Your task to perform on an android device: View the shopping cart on costco. Search for "lg ultragear" on costco, select the first entry, and add it to the cart. Image 0: 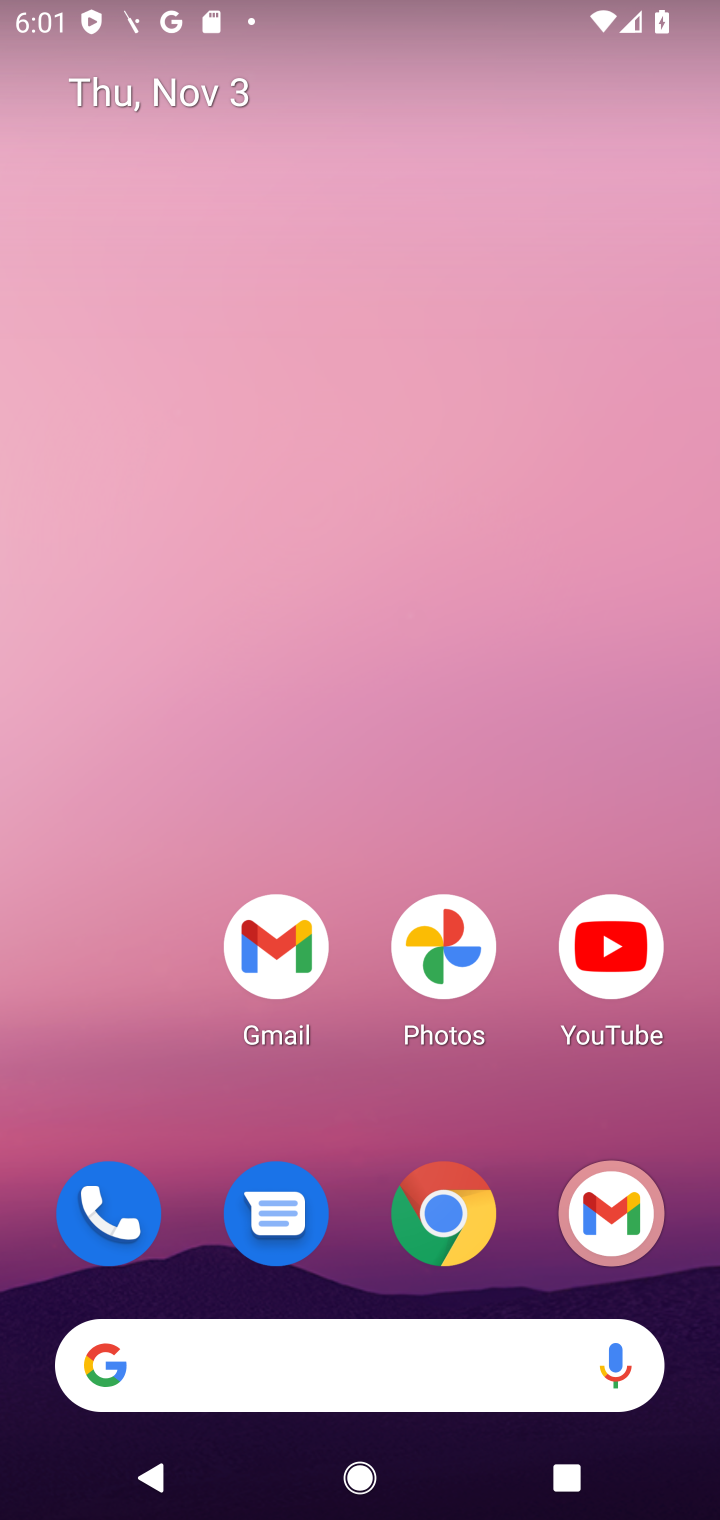
Step 0: click (463, 1234)
Your task to perform on an android device: View the shopping cart on costco. Search for "lg ultragear" on costco, select the first entry, and add it to the cart. Image 1: 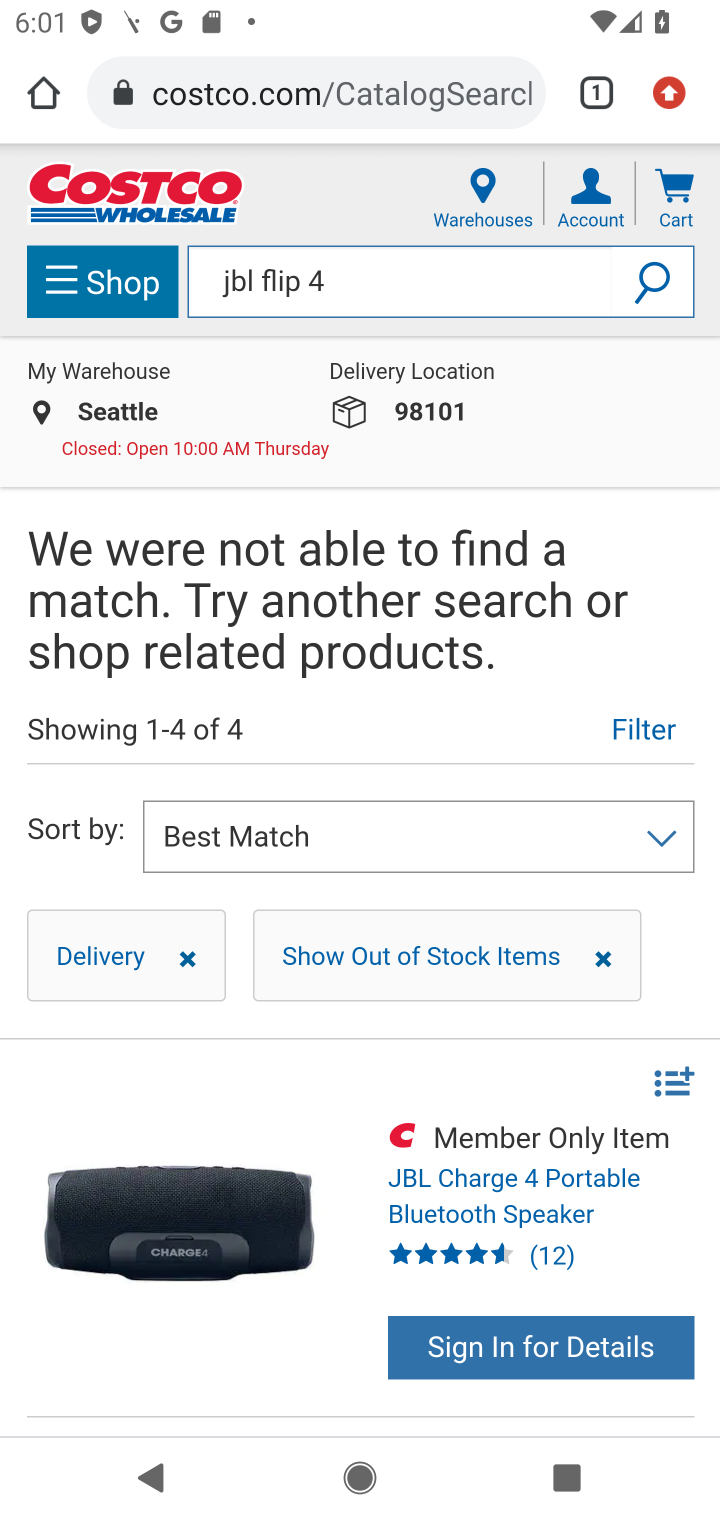
Step 1: click (670, 204)
Your task to perform on an android device: View the shopping cart on costco. Search for "lg ultragear" on costco, select the first entry, and add it to the cart. Image 2: 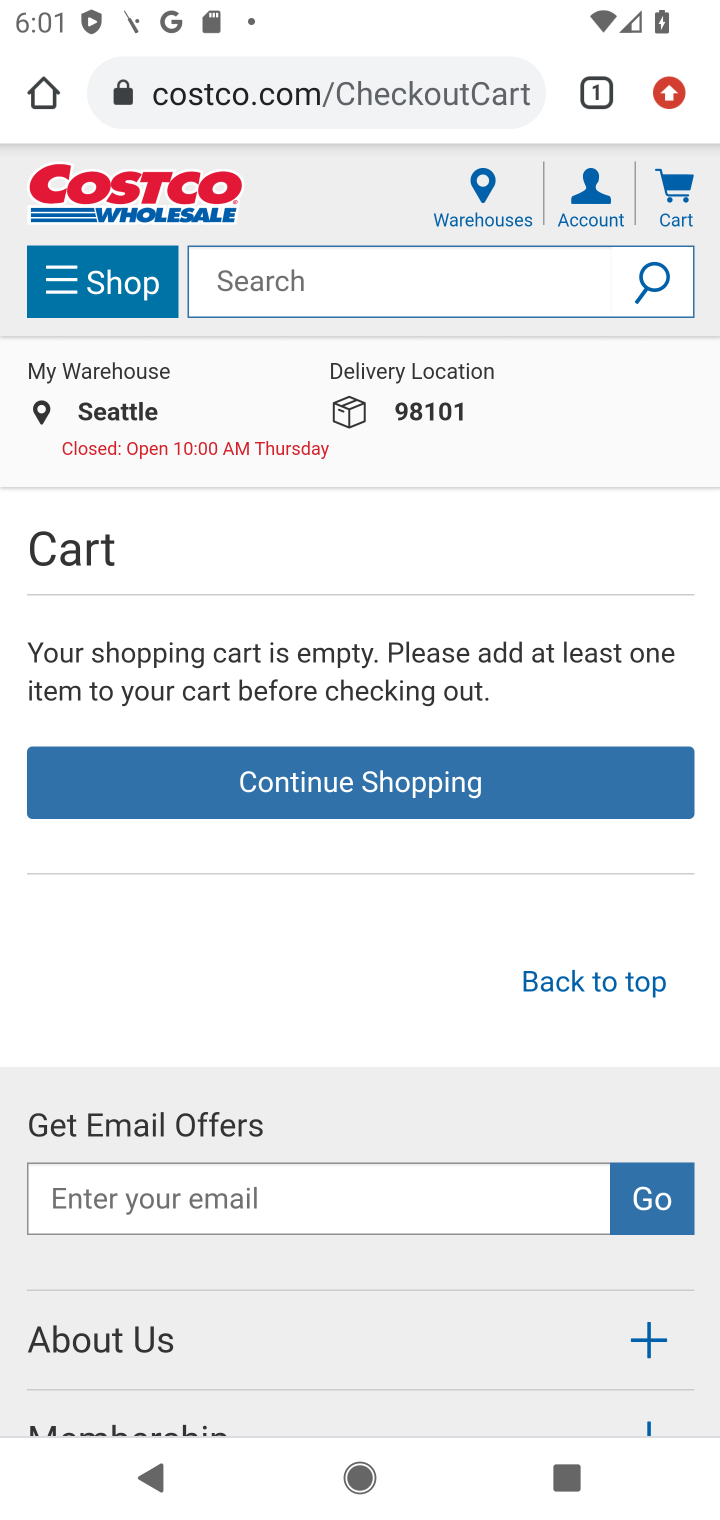
Step 2: click (361, 299)
Your task to perform on an android device: View the shopping cart on costco. Search for "lg ultragear" on costco, select the first entry, and add it to the cart. Image 3: 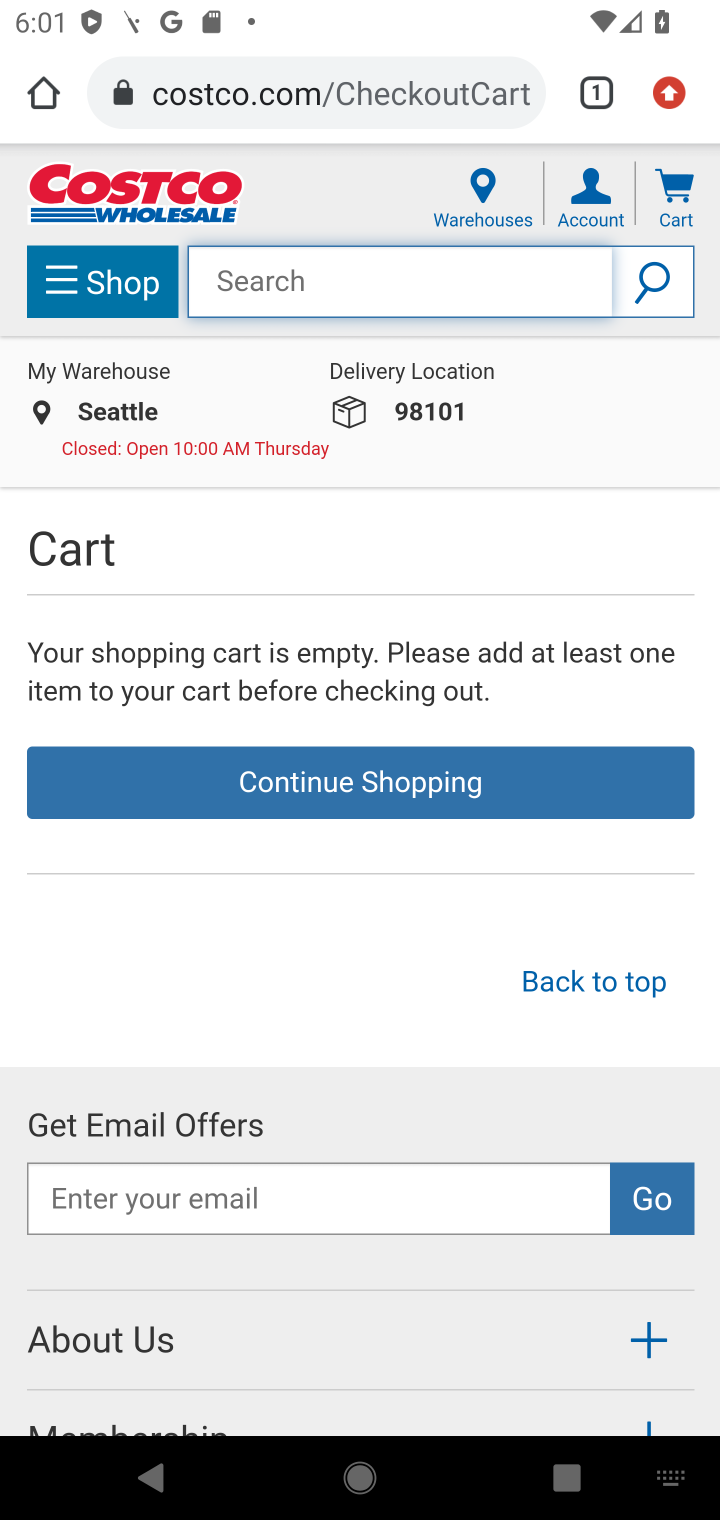
Step 3: type "lg ultragear"
Your task to perform on an android device: View the shopping cart on costco. Search for "lg ultragear" on costco, select the first entry, and add it to the cart. Image 4: 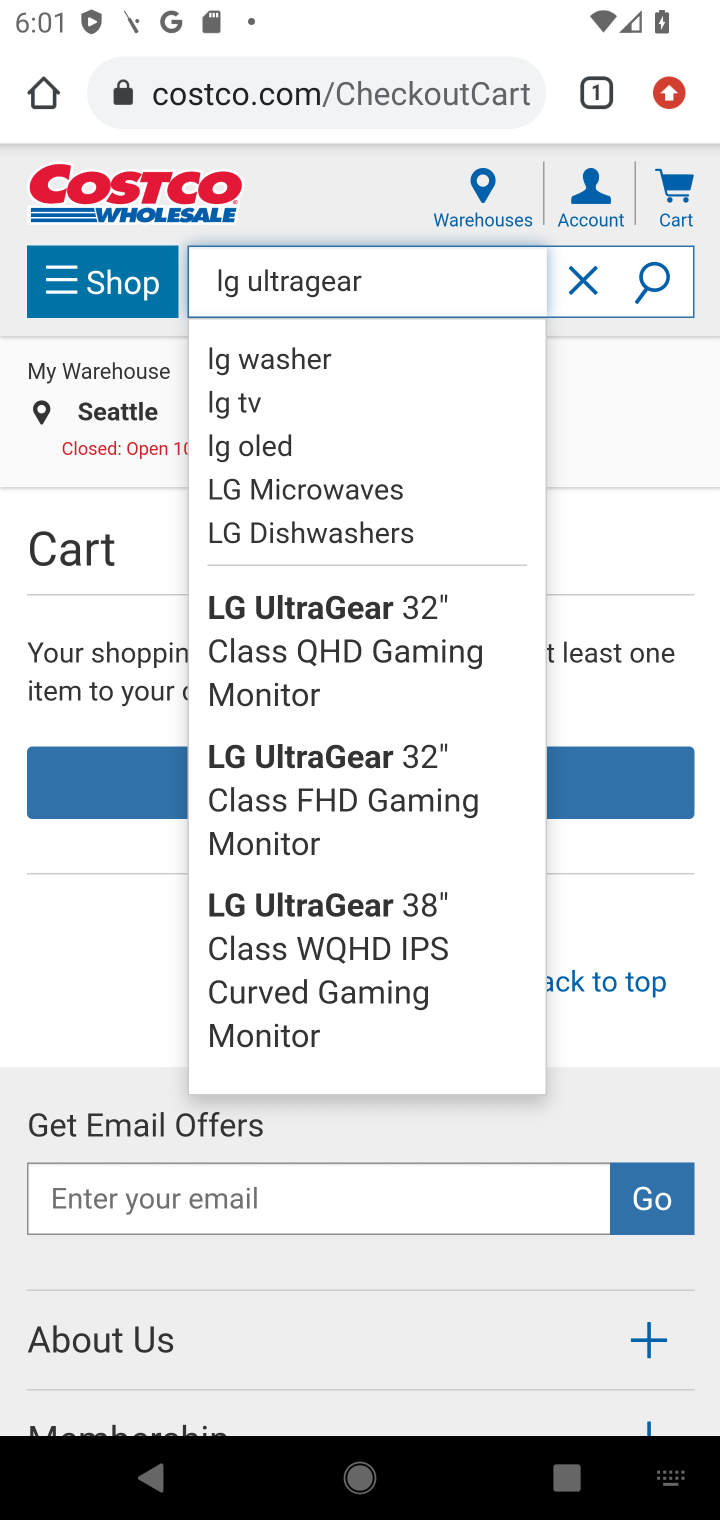
Step 4: click (655, 277)
Your task to perform on an android device: View the shopping cart on costco. Search for "lg ultragear" on costco, select the first entry, and add it to the cart. Image 5: 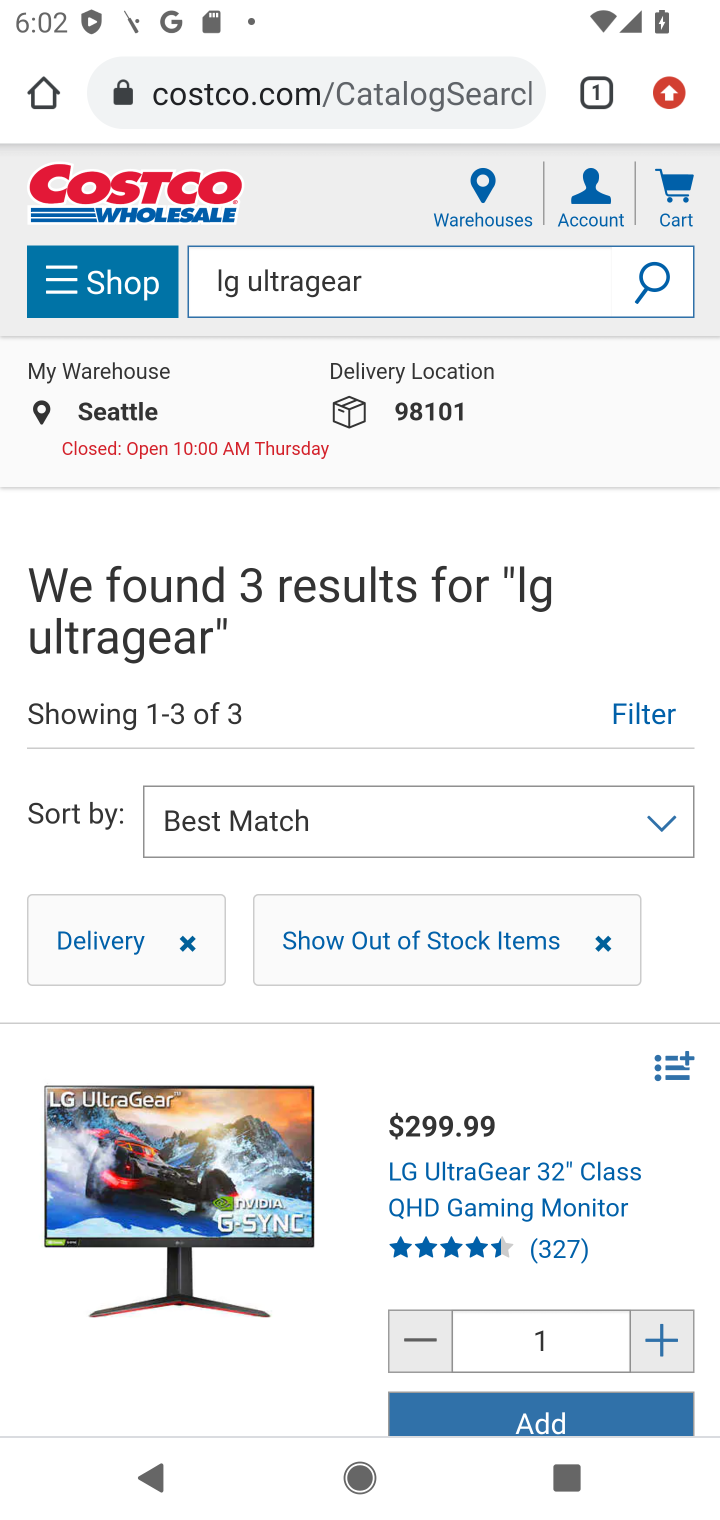
Step 5: click (440, 1203)
Your task to perform on an android device: View the shopping cart on costco. Search for "lg ultragear" on costco, select the first entry, and add it to the cart. Image 6: 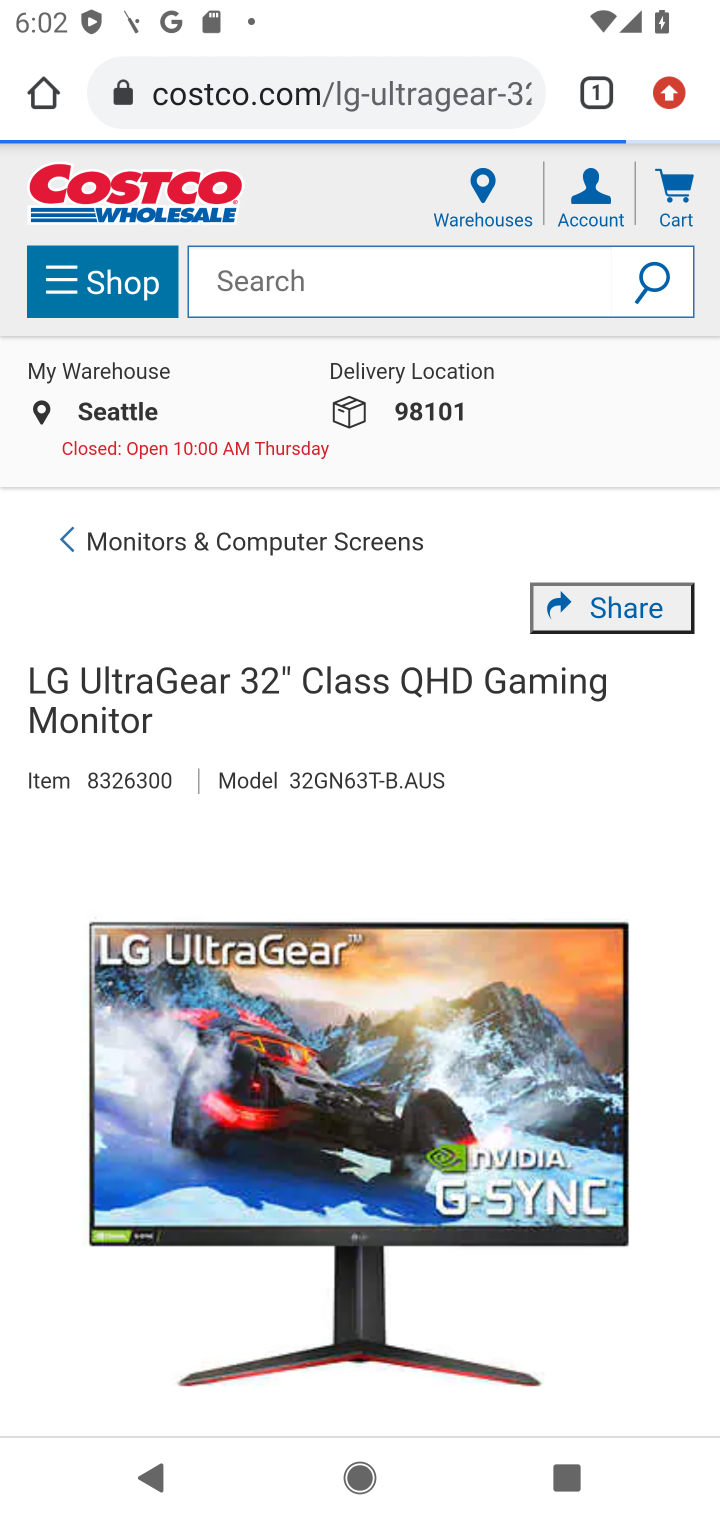
Step 6: drag from (414, 1128) to (502, 391)
Your task to perform on an android device: View the shopping cart on costco. Search for "lg ultragear" on costco, select the first entry, and add it to the cart. Image 7: 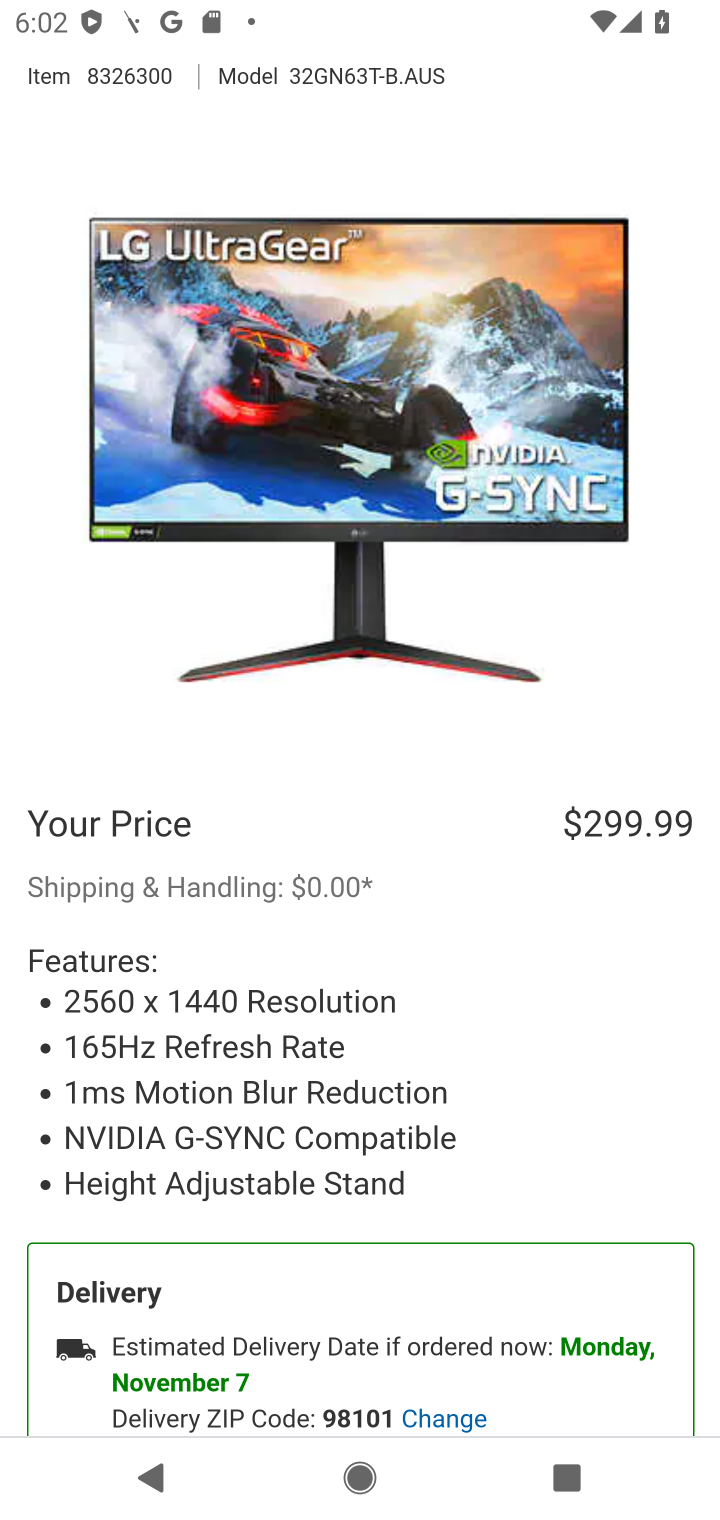
Step 7: drag from (443, 1007) to (499, 391)
Your task to perform on an android device: View the shopping cart on costco. Search for "lg ultragear" on costco, select the first entry, and add it to the cart. Image 8: 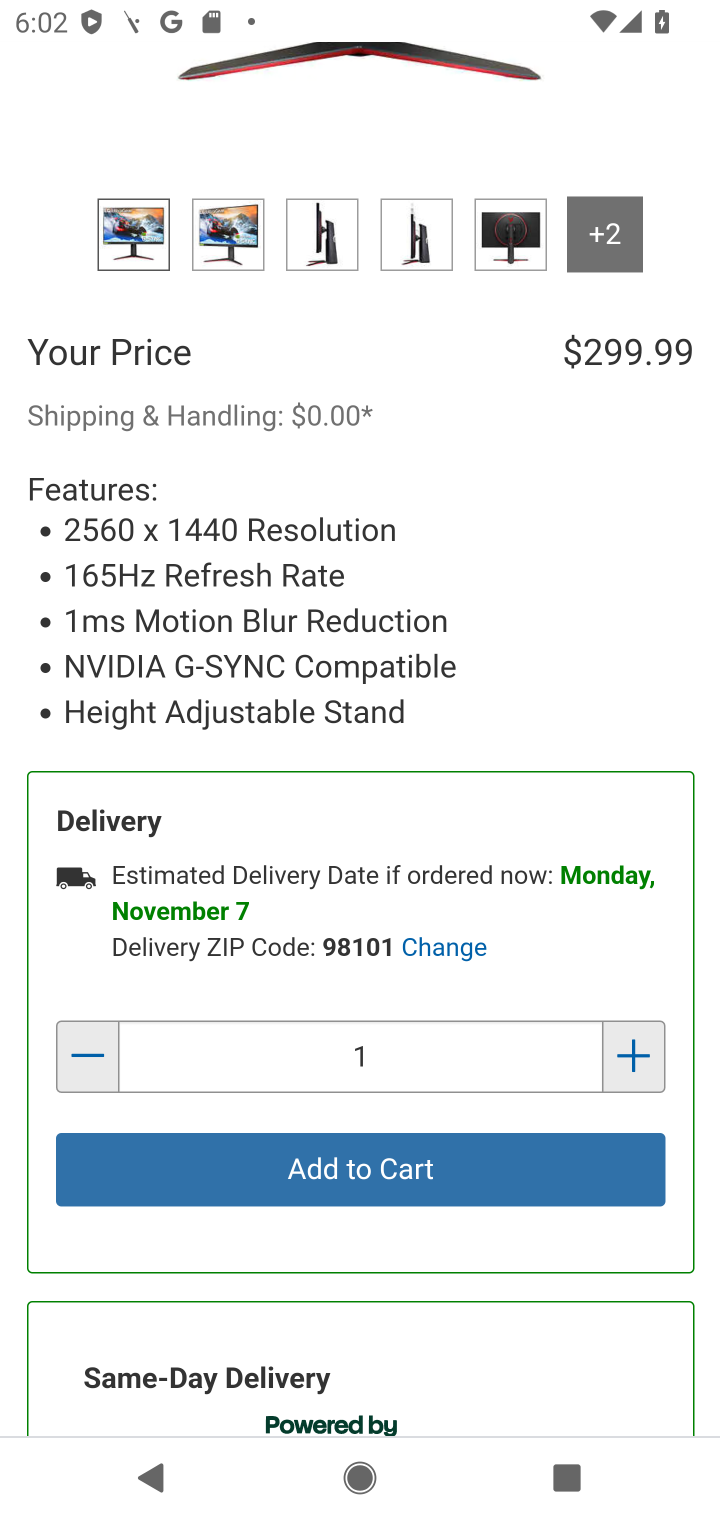
Step 8: click (348, 1168)
Your task to perform on an android device: View the shopping cart on costco. Search for "lg ultragear" on costco, select the first entry, and add it to the cart. Image 9: 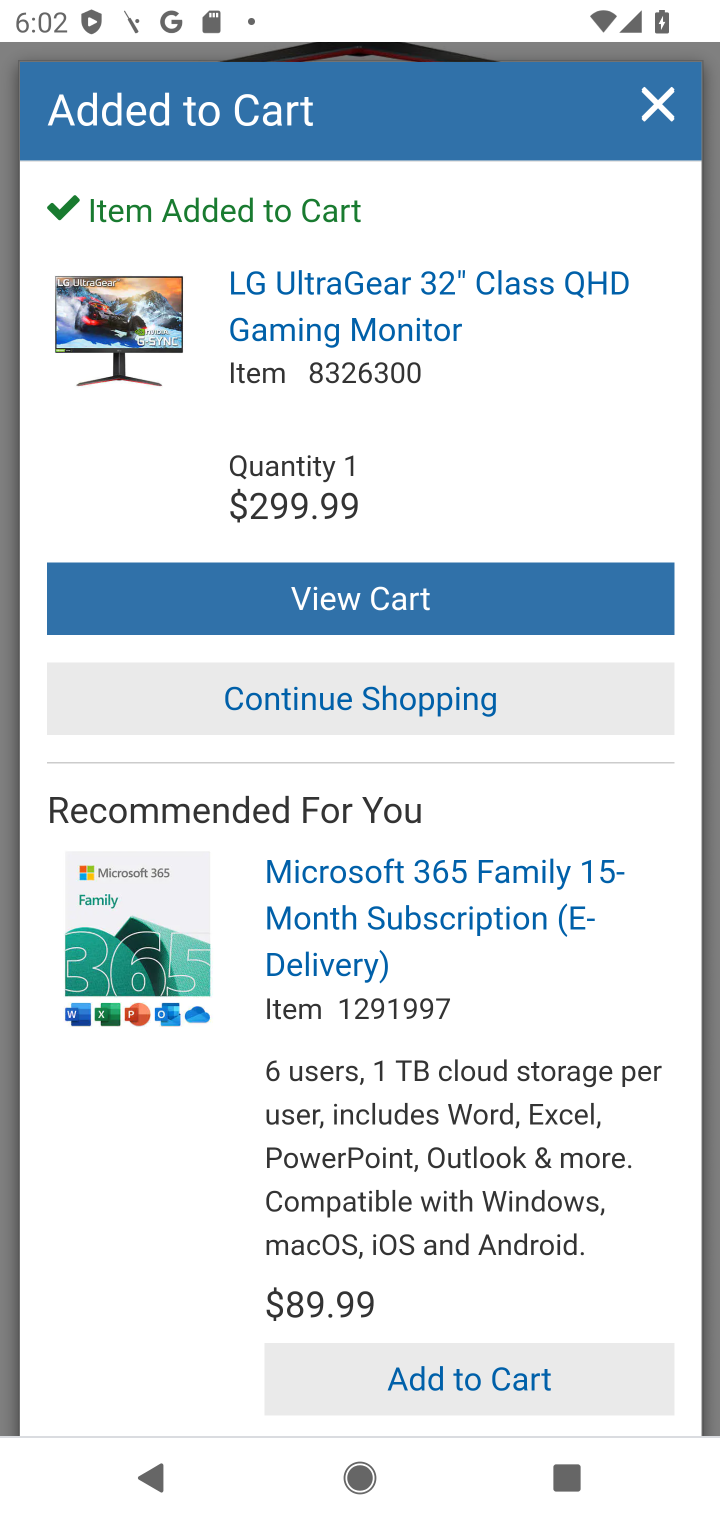
Step 9: task complete